Your task to perform on an android device: change notification settings in the gmail app Image 0: 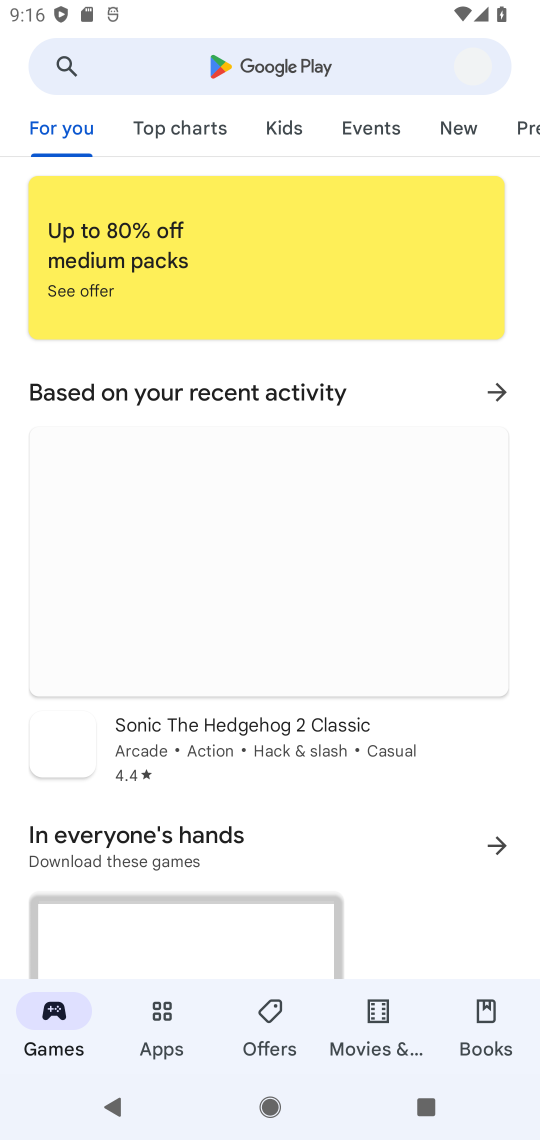
Step 0: press back button
Your task to perform on an android device: change notification settings in the gmail app Image 1: 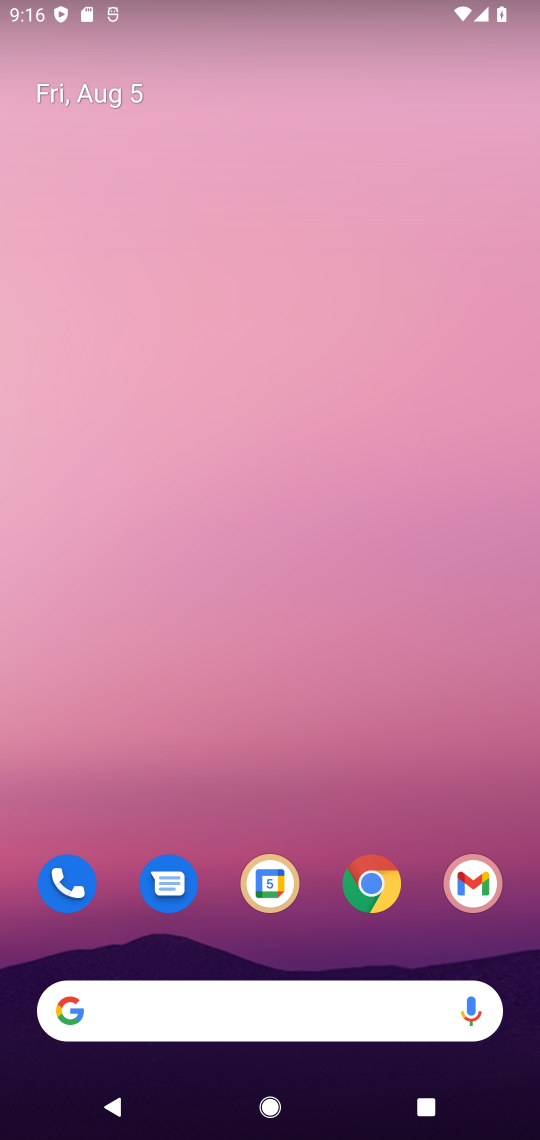
Step 1: drag from (305, 875) to (412, 64)
Your task to perform on an android device: change notification settings in the gmail app Image 2: 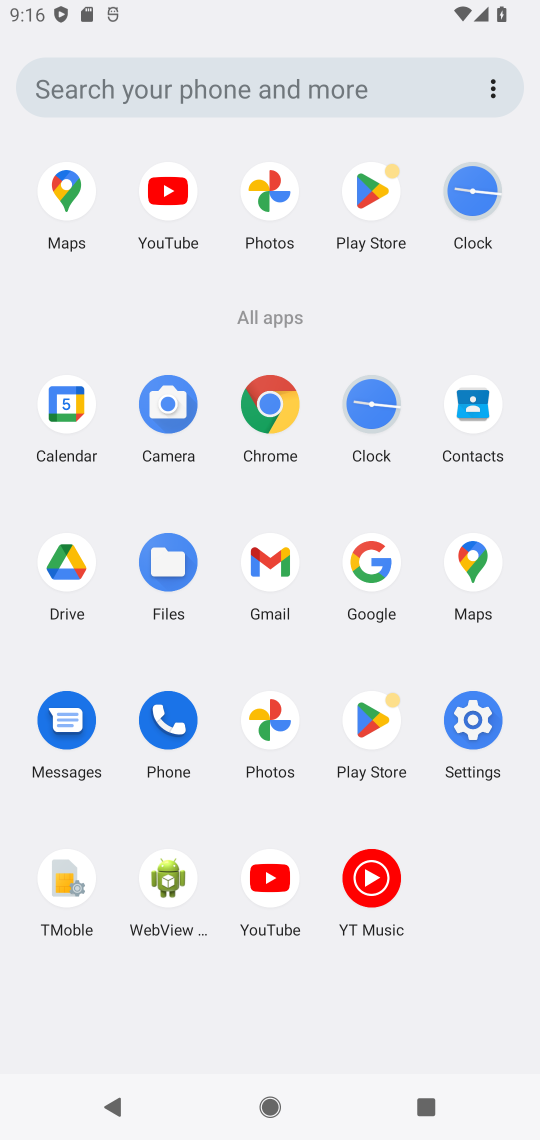
Step 2: click (268, 562)
Your task to perform on an android device: change notification settings in the gmail app Image 3: 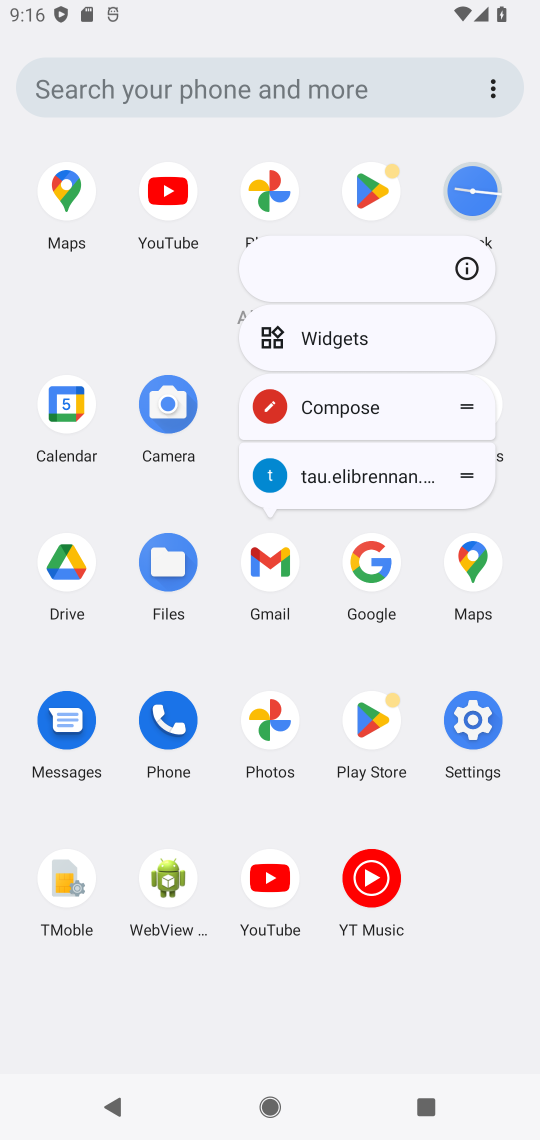
Step 3: click (463, 261)
Your task to perform on an android device: change notification settings in the gmail app Image 4: 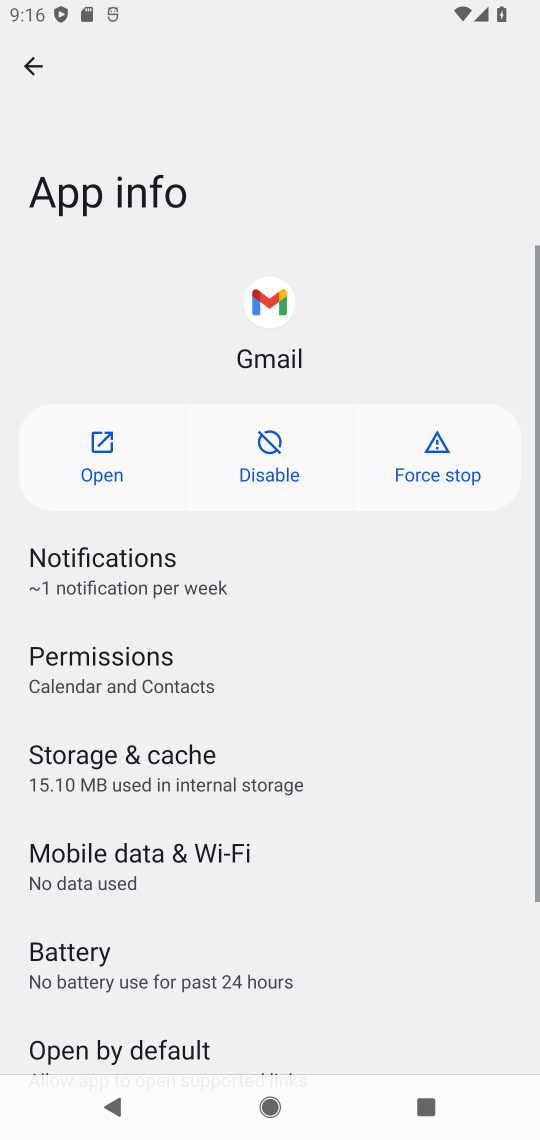
Step 4: click (264, 577)
Your task to perform on an android device: change notification settings in the gmail app Image 5: 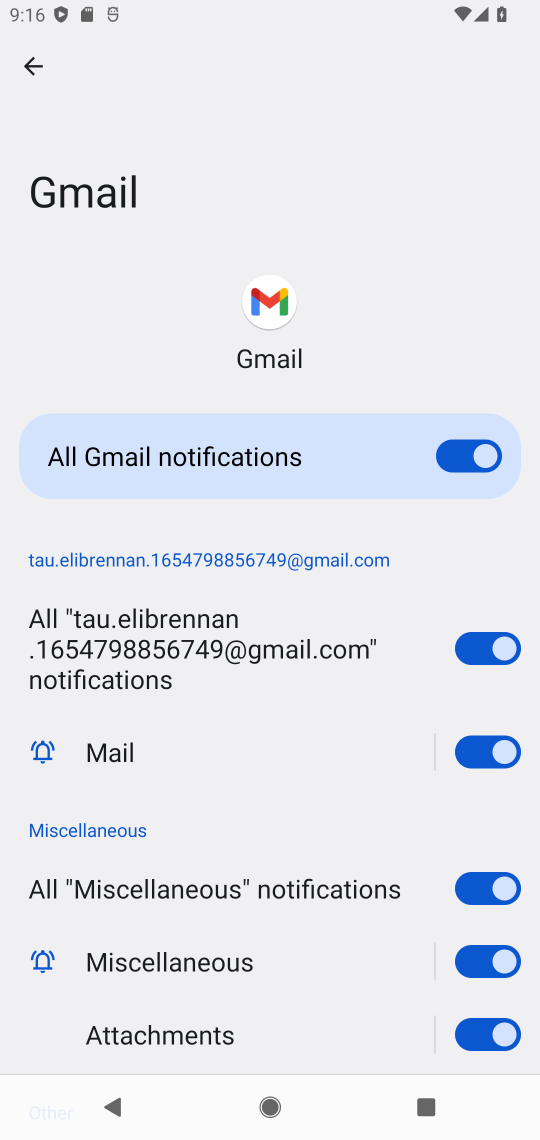
Step 5: click (495, 760)
Your task to perform on an android device: change notification settings in the gmail app Image 6: 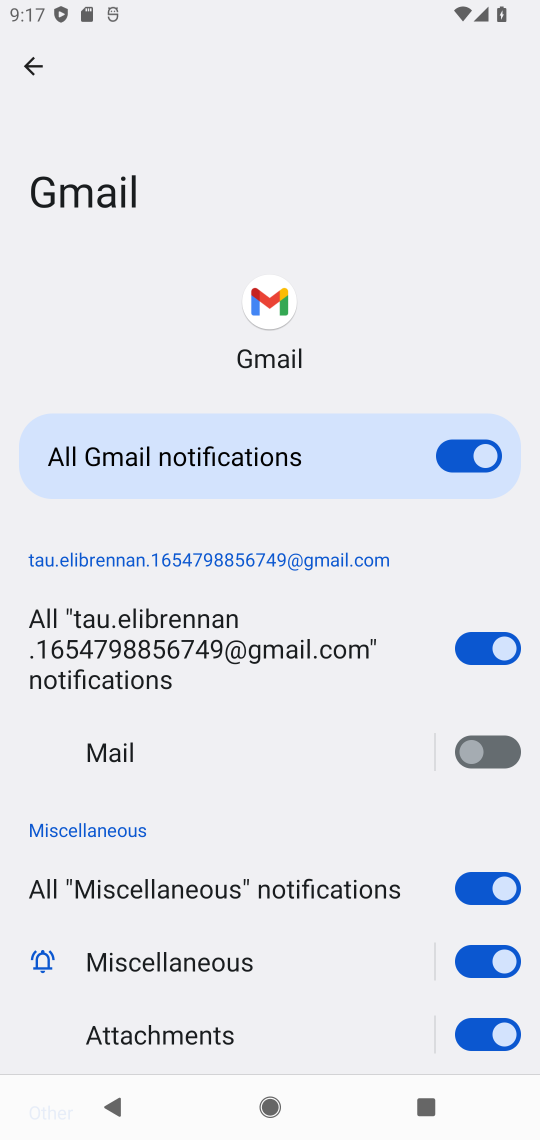
Step 6: task complete